Your task to perform on an android device: Go to Google maps Image 0: 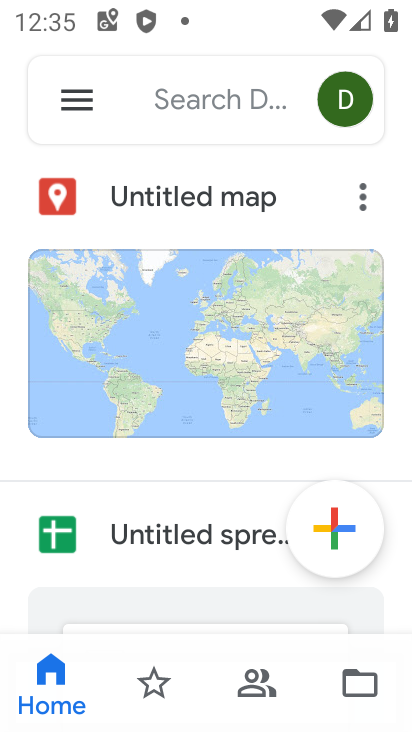
Step 0: press home button
Your task to perform on an android device: Go to Google maps Image 1: 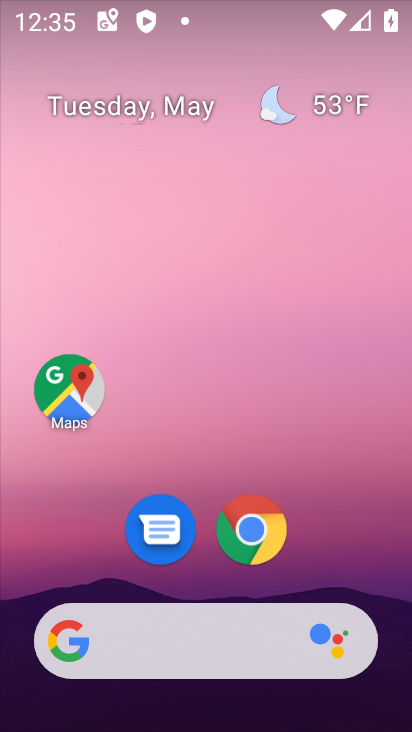
Step 1: drag from (205, 713) to (203, 76)
Your task to perform on an android device: Go to Google maps Image 2: 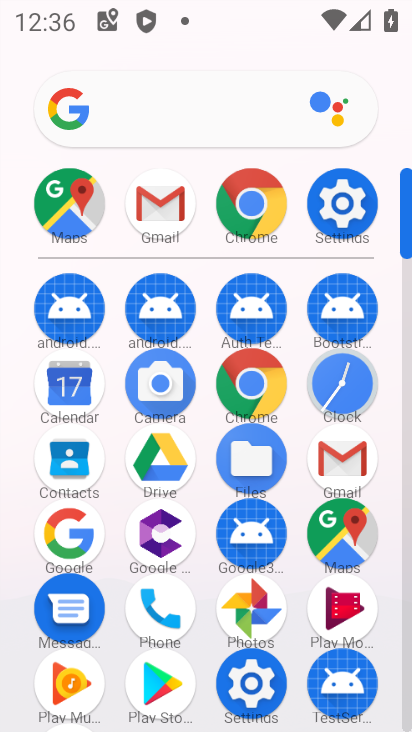
Step 2: click (348, 534)
Your task to perform on an android device: Go to Google maps Image 3: 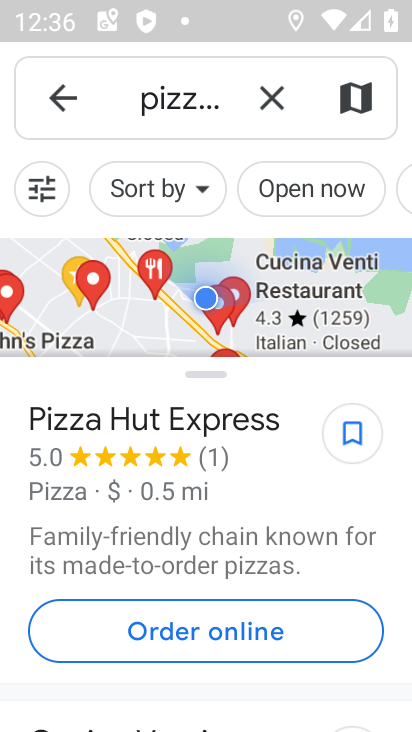
Step 3: task complete